Your task to perform on an android device: delete location history Image 0: 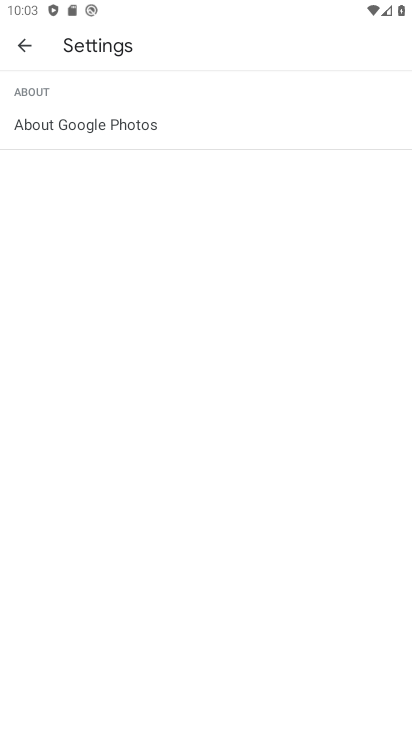
Step 0: press home button
Your task to perform on an android device: delete location history Image 1: 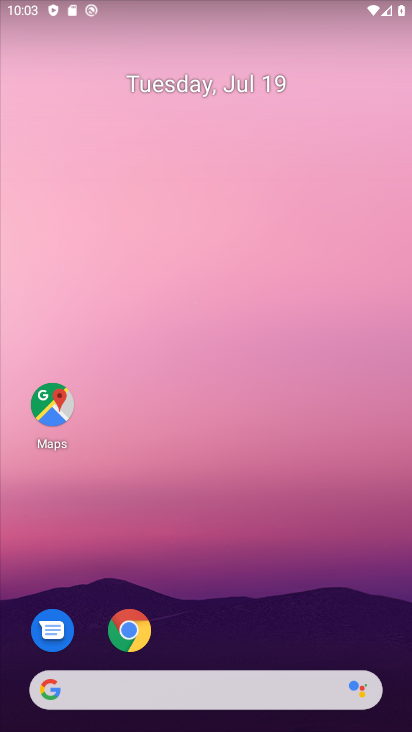
Step 1: drag from (305, 614) to (281, 269)
Your task to perform on an android device: delete location history Image 2: 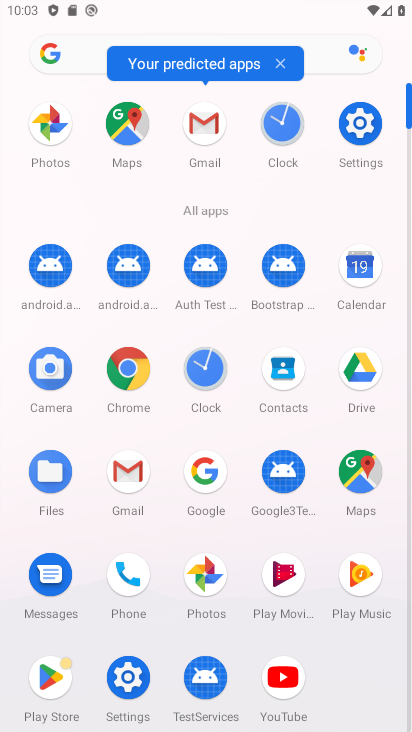
Step 2: click (371, 483)
Your task to perform on an android device: delete location history Image 3: 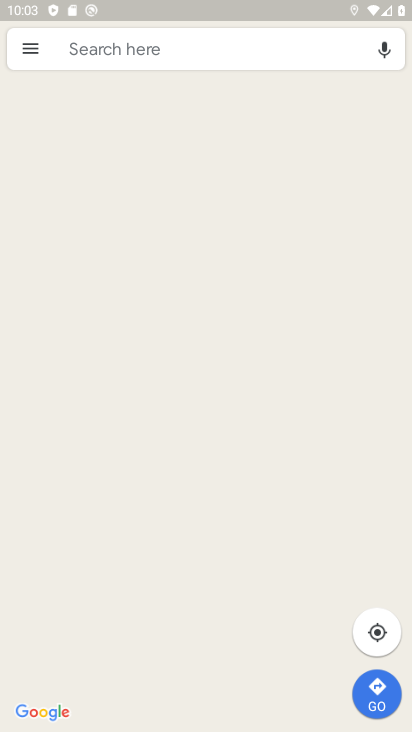
Step 3: click (30, 48)
Your task to perform on an android device: delete location history Image 4: 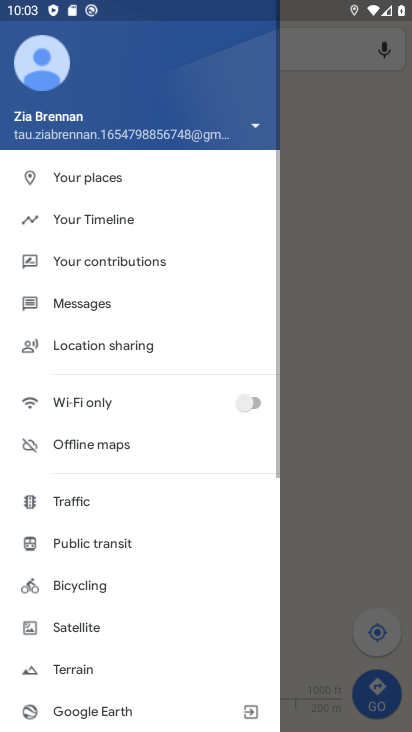
Step 4: click (24, 49)
Your task to perform on an android device: delete location history Image 5: 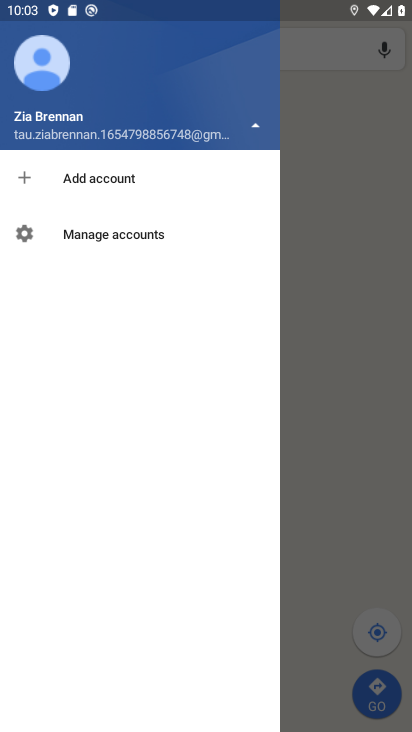
Step 5: click (24, 49)
Your task to perform on an android device: delete location history Image 6: 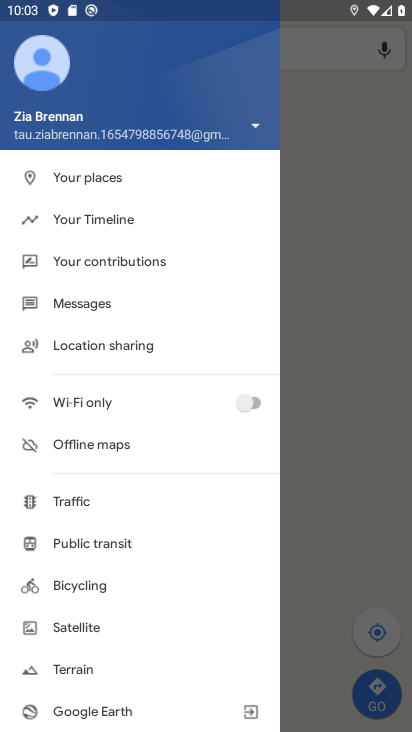
Step 6: drag from (166, 658) to (121, 211)
Your task to perform on an android device: delete location history Image 7: 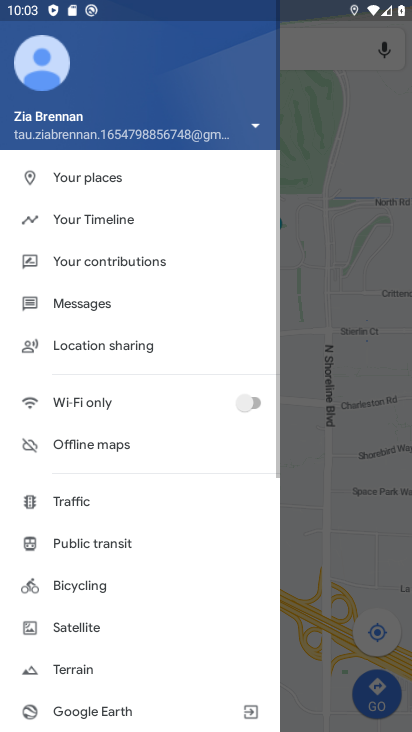
Step 7: drag from (168, 667) to (158, 250)
Your task to perform on an android device: delete location history Image 8: 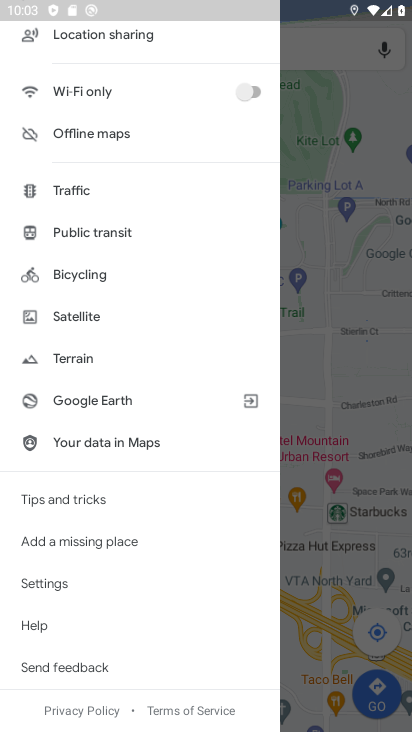
Step 8: click (55, 577)
Your task to perform on an android device: delete location history Image 9: 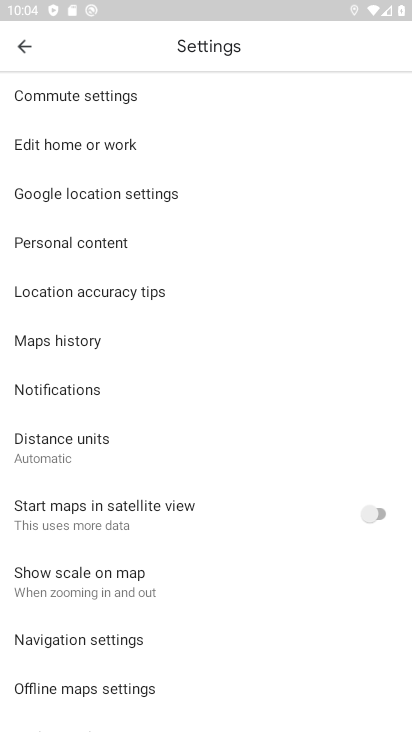
Step 9: drag from (273, 131) to (266, 629)
Your task to perform on an android device: delete location history Image 10: 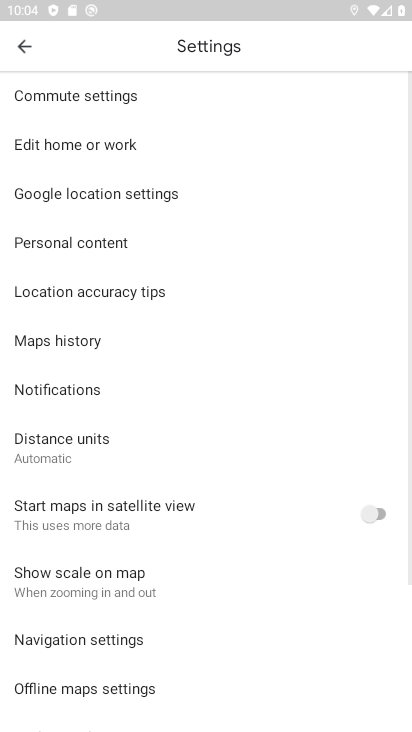
Step 10: drag from (231, 191) to (247, 653)
Your task to perform on an android device: delete location history Image 11: 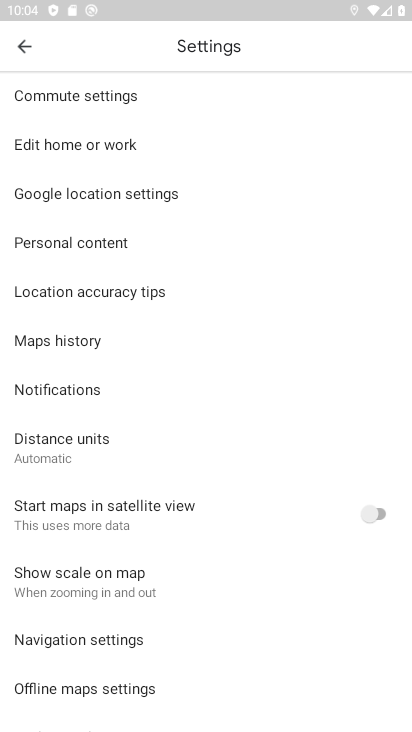
Step 11: drag from (255, 652) to (261, 181)
Your task to perform on an android device: delete location history Image 12: 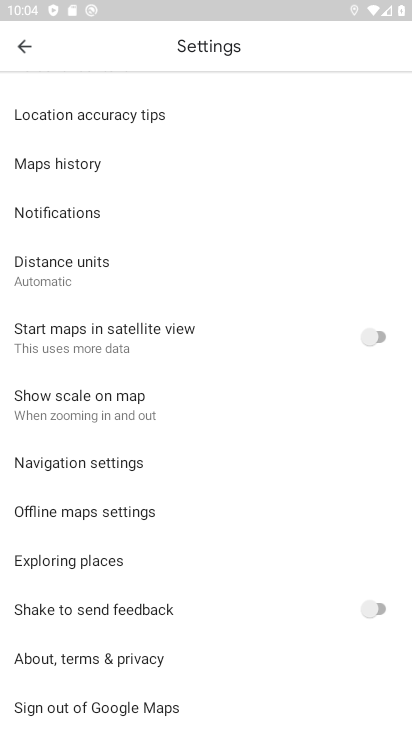
Step 12: drag from (220, 130) to (246, 633)
Your task to perform on an android device: delete location history Image 13: 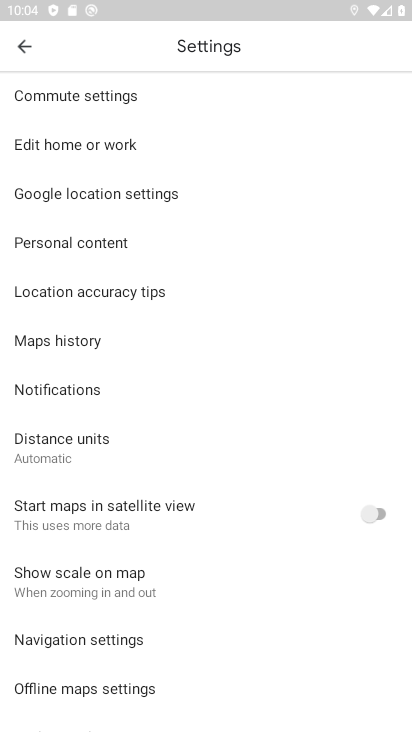
Step 13: drag from (211, 115) to (225, 624)
Your task to perform on an android device: delete location history Image 14: 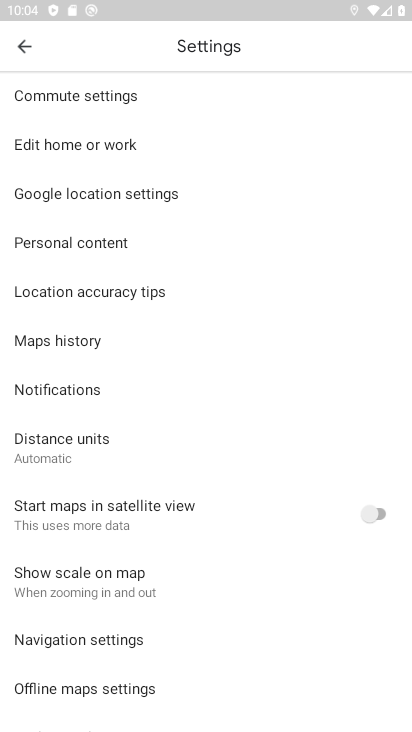
Step 14: drag from (253, 111) to (256, 712)
Your task to perform on an android device: delete location history Image 15: 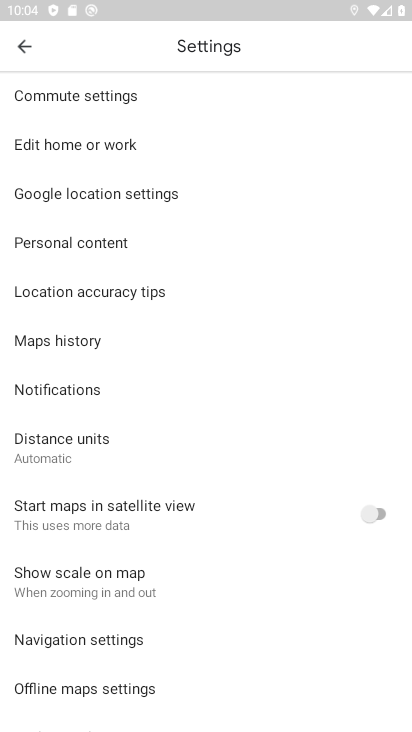
Step 15: click (46, 323)
Your task to perform on an android device: delete location history Image 16: 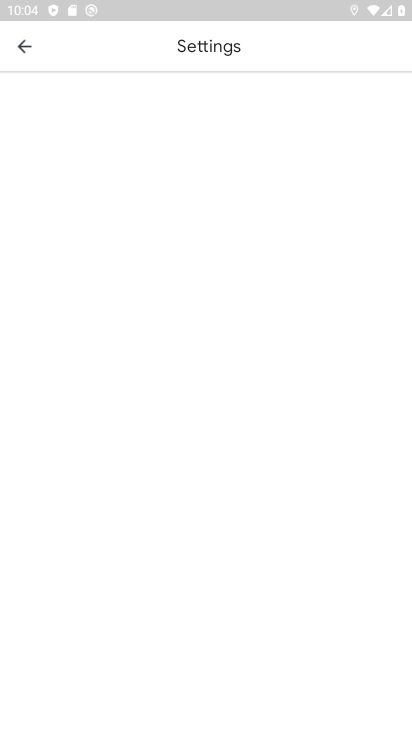
Step 16: click (56, 343)
Your task to perform on an android device: delete location history Image 17: 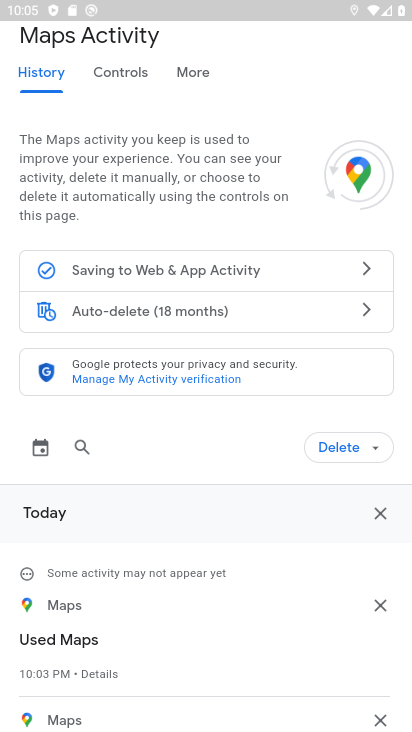
Step 17: click (339, 448)
Your task to perform on an android device: delete location history Image 18: 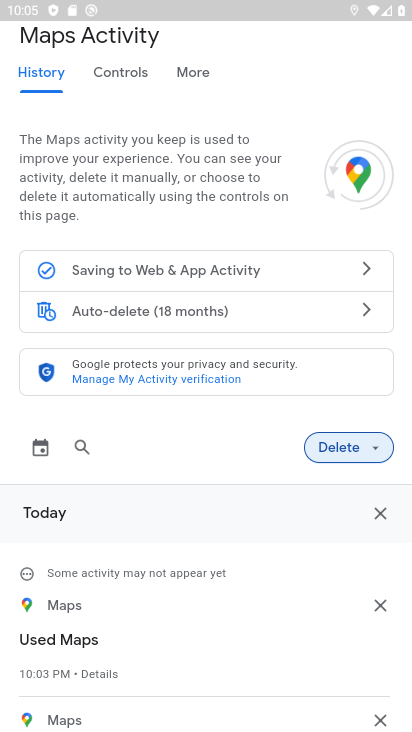
Step 18: click (340, 445)
Your task to perform on an android device: delete location history Image 19: 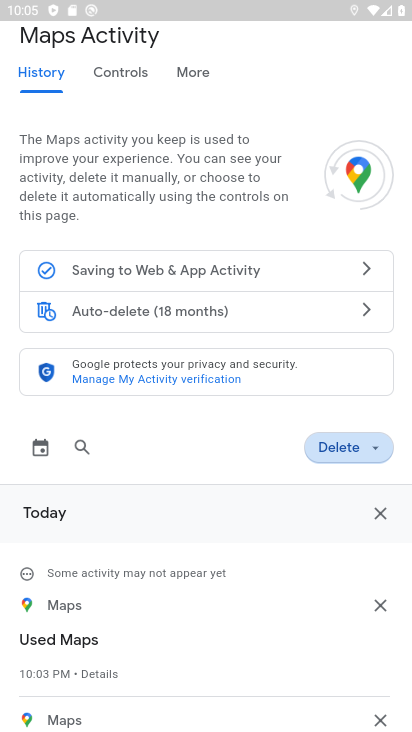
Step 19: drag from (249, 519) to (224, 262)
Your task to perform on an android device: delete location history Image 20: 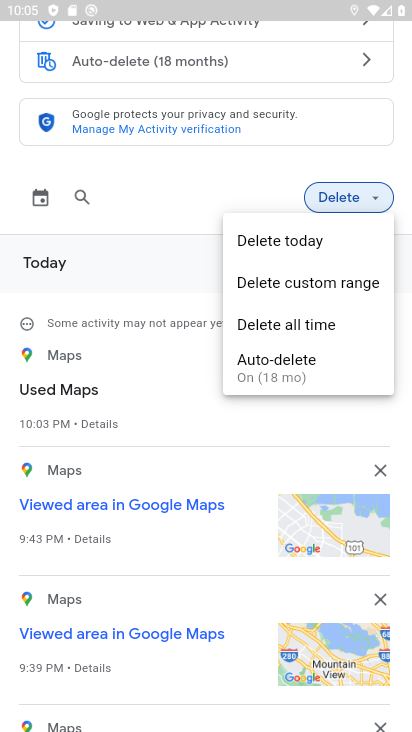
Step 20: click (329, 200)
Your task to perform on an android device: delete location history Image 21: 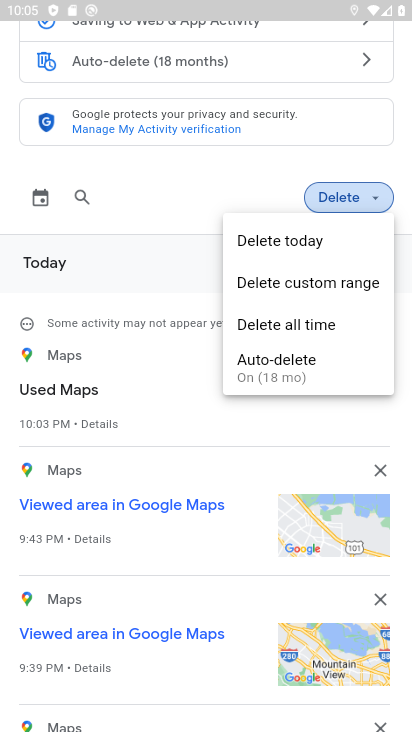
Step 21: click (331, 190)
Your task to perform on an android device: delete location history Image 22: 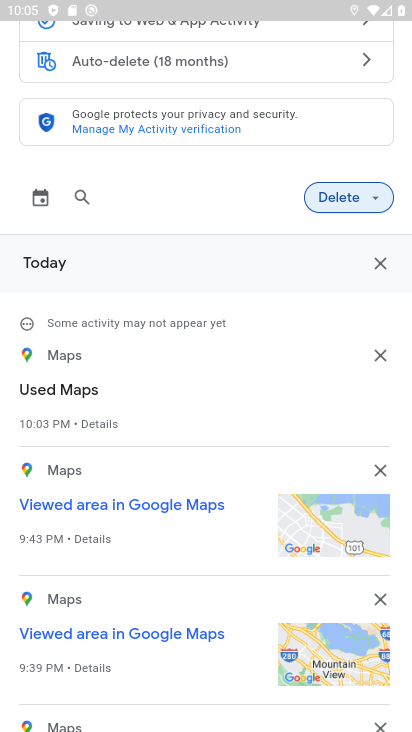
Step 22: click (341, 198)
Your task to perform on an android device: delete location history Image 23: 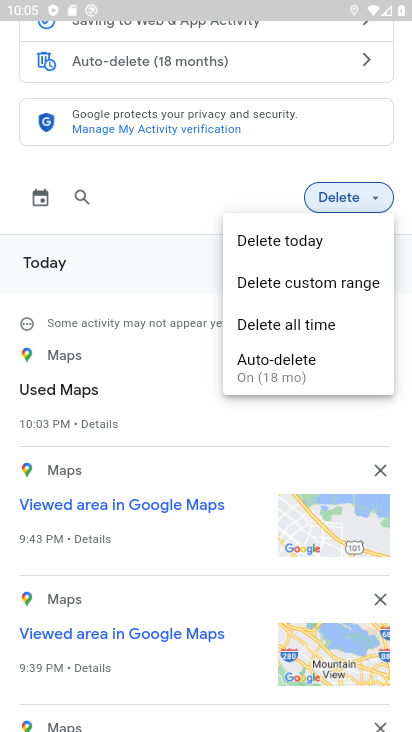
Step 23: click (302, 326)
Your task to perform on an android device: delete location history Image 24: 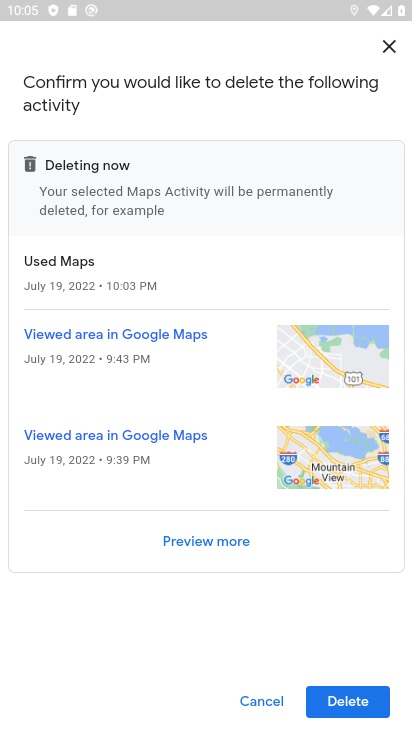
Step 24: click (345, 700)
Your task to perform on an android device: delete location history Image 25: 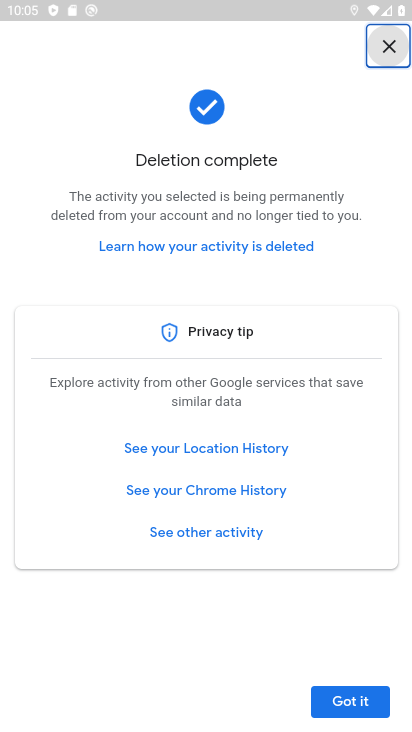
Step 25: click (353, 701)
Your task to perform on an android device: delete location history Image 26: 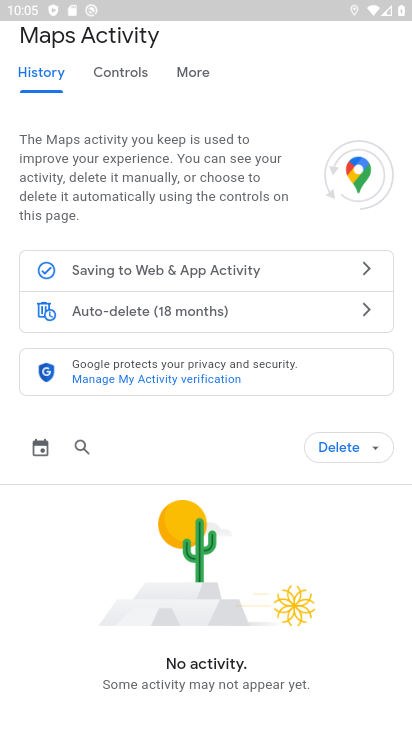
Step 26: task complete